Your task to perform on an android device: turn notification dots on Image 0: 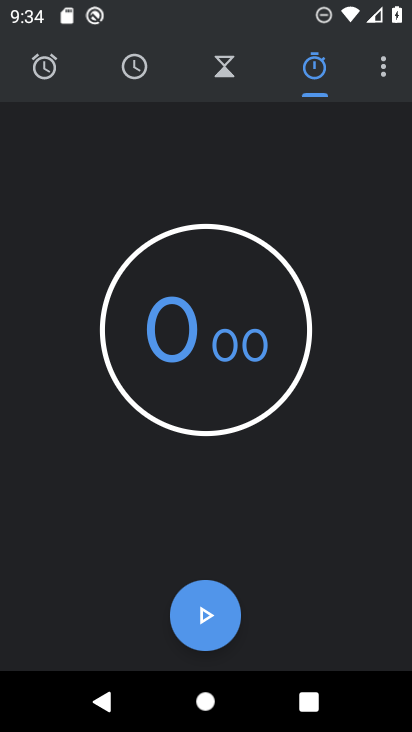
Step 0: press home button
Your task to perform on an android device: turn notification dots on Image 1: 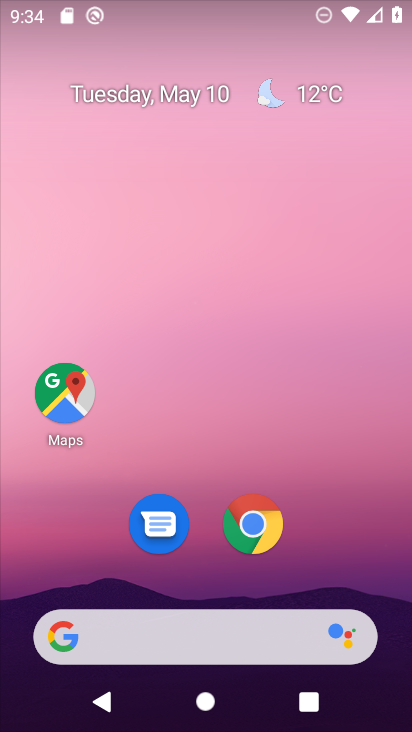
Step 1: drag from (343, 491) to (308, 40)
Your task to perform on an android device: turn notification dots on Image 2: 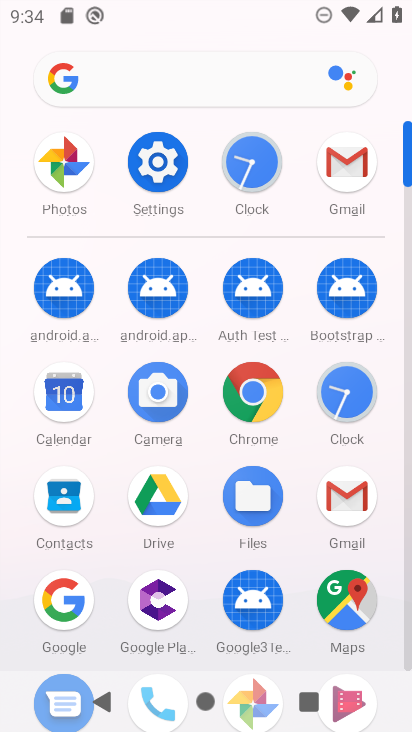
Step 2: click (161, 175)
Your task to perform on an android device: turn notification dots on Image 3: 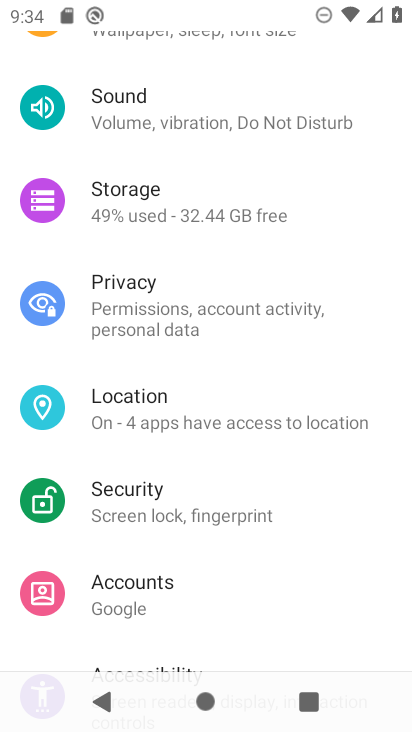
Step 3: drag from (253, 175) to (251, 507)
Your task to perform on an android device: turn notification dots on Image 4: 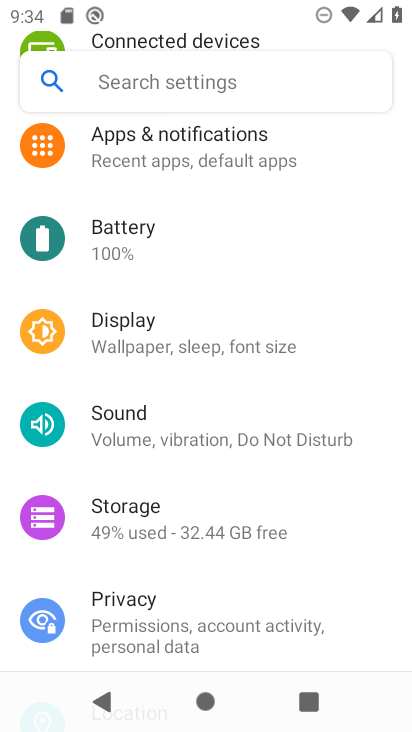
Step 4: click (258, 147)
Your task to perform on an android device: turn notification dots on Image 5: 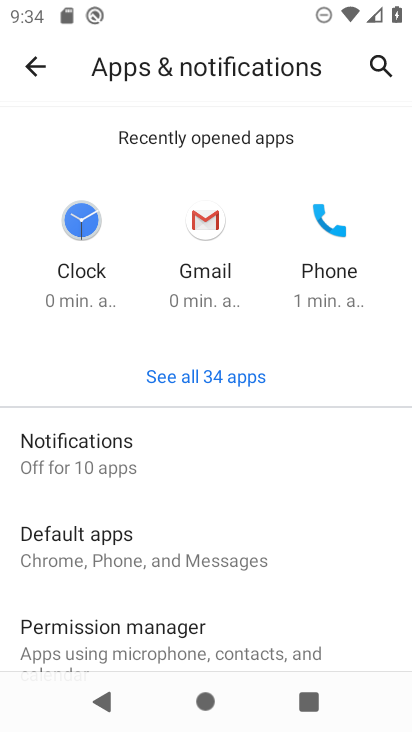
Step 5: click (127, 455)
Your task to perform on an android device: turn notification dots on Image 6: 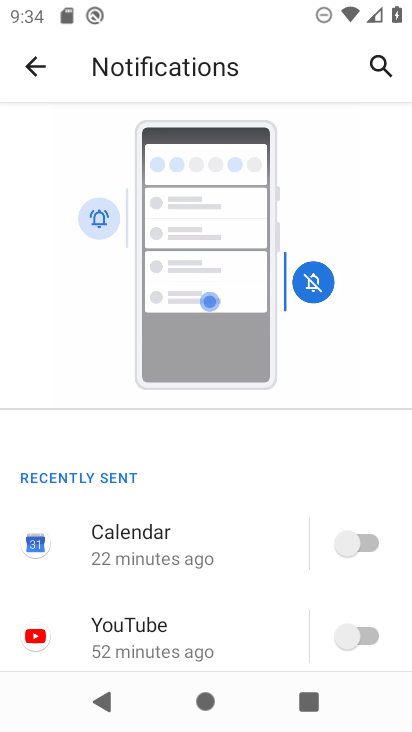
Step 6: drag from (236, 587) to (241, 193)
Your task to perform on an android device: turn notification dots on Image 7: 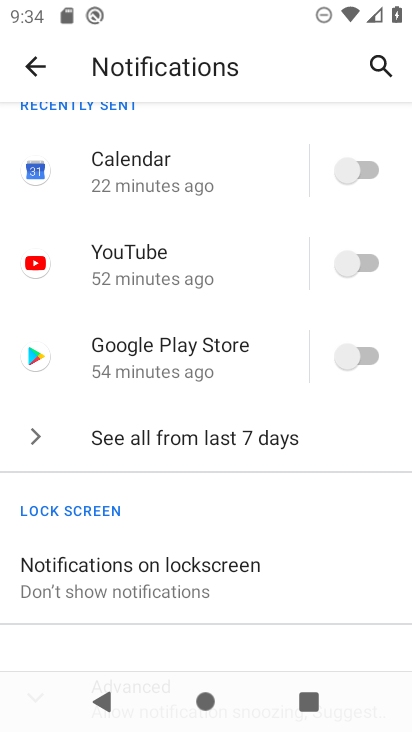
Step 7: drag from (257, 506) to (273, 202)
Your task to perform on an android device: turn notification dots on Image 8: 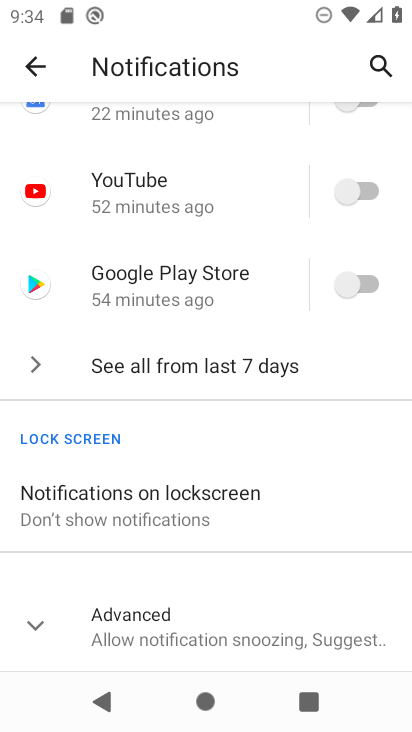
Step 8: click (33, 619)
Your task to perform on an android device: turn notification dots on Image 9: 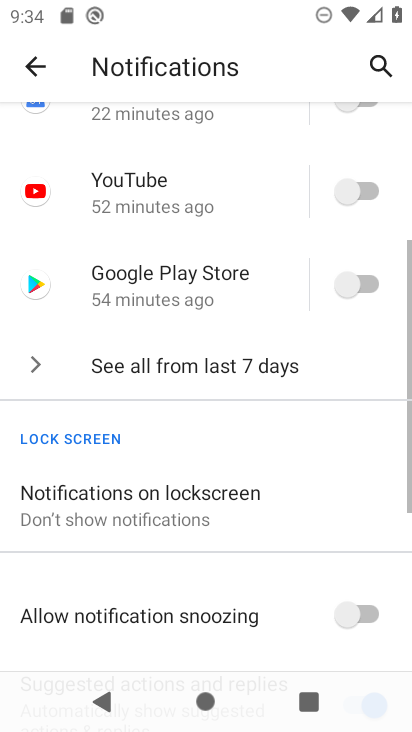
Step 9: task complete